Your task to perform on an android device: empty trash in the gmail app Image 0: 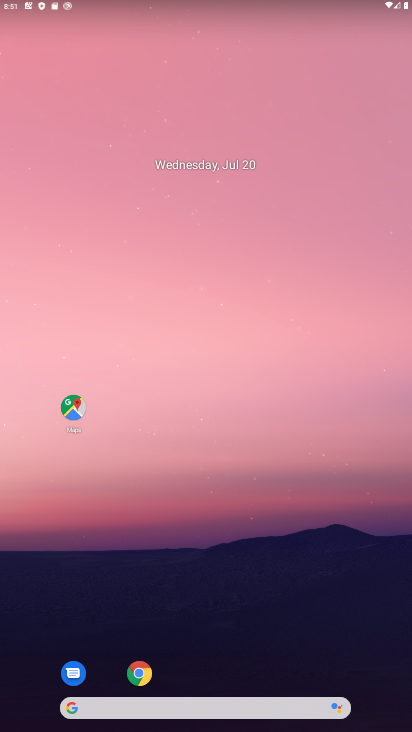
Step 0: drag from (207, 615) to (181, 127)
Your task to perform on an android device: empty trash in the gmail app Image 1: 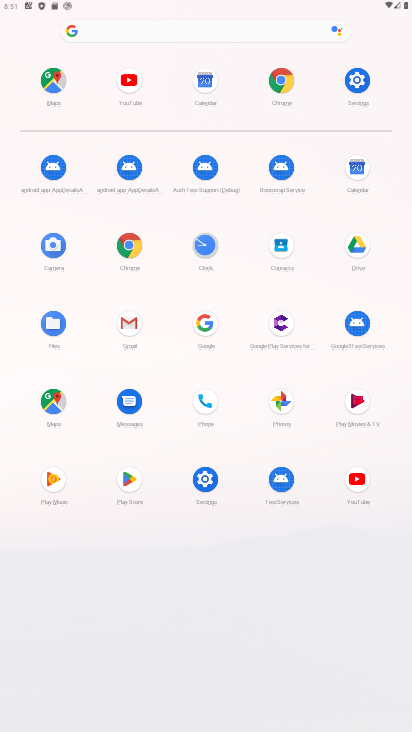
Step 1: click (113, 319)
Your task to perform on an android device: empty trash in the gmail app Image 2: 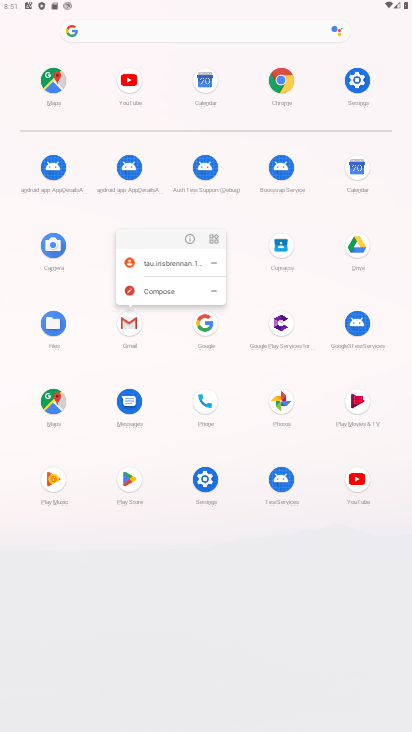
Step 2: click (193, 230)
Your task to perform on an android device: empty trash in the gmail app Image 3: 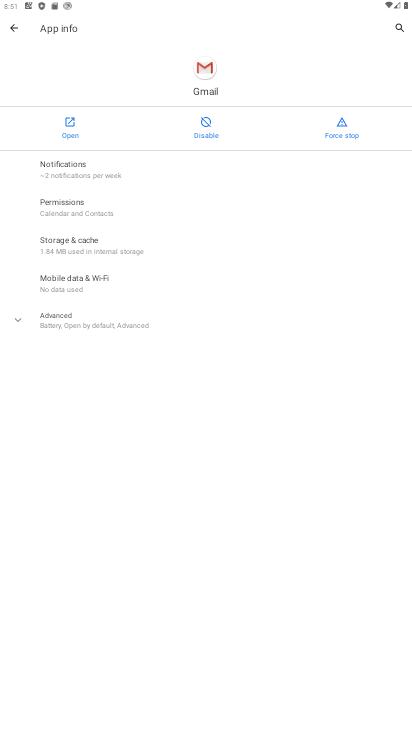
Step 3: drag from (213, 631) to (196, 362)
Your task to perform on an android device: empty trash in the gmail app Image 4: 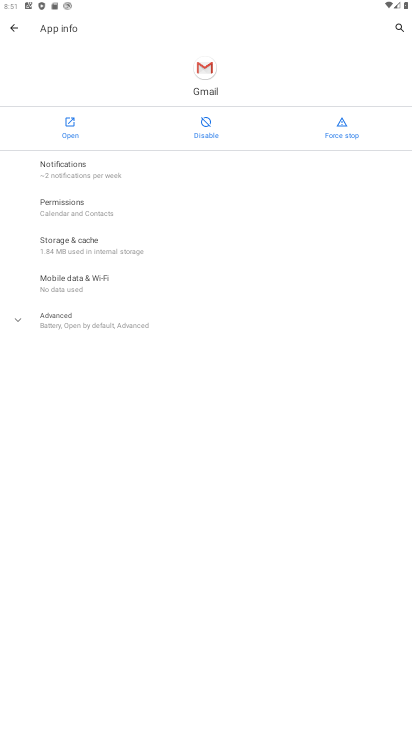
Step 4: click (71, 125)
Your task to perform on an android device: empty trash in the gmail app Image 5: 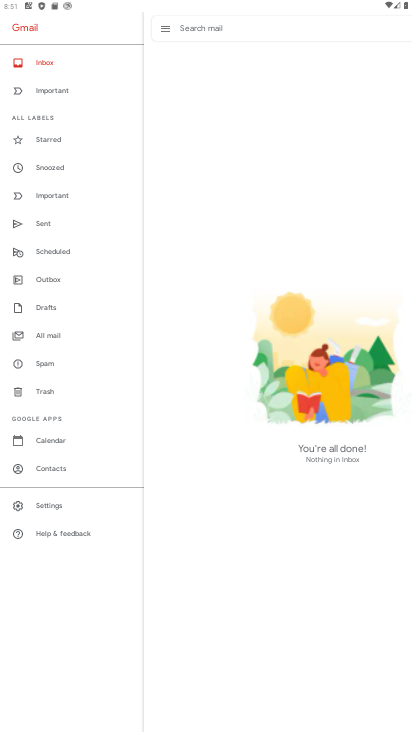
Step 5: click (47, 365)
Your task to perform on an android device: empty trash in the gmail app Image 6: 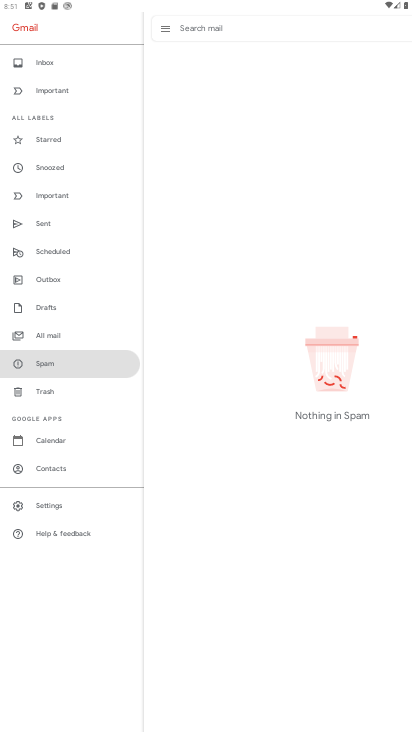
Step 6: click (62, 380)
Your task to perform on an android device: empty trash in the gmail app Image 7: 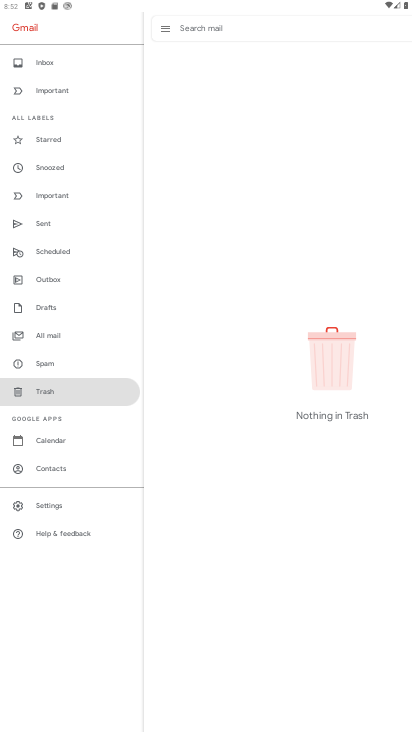
Step 7: task complete